Your task to perform on an android device: Go to CNN.com Image 0: 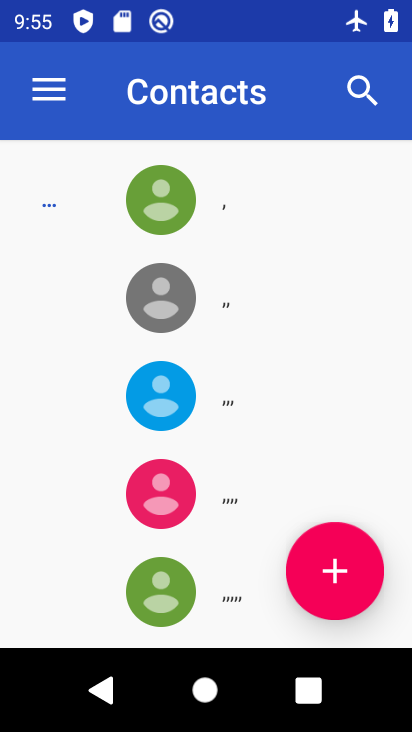
Step 0: press home button
Your task to perform on an android device: Go to CNN.com Image 1: 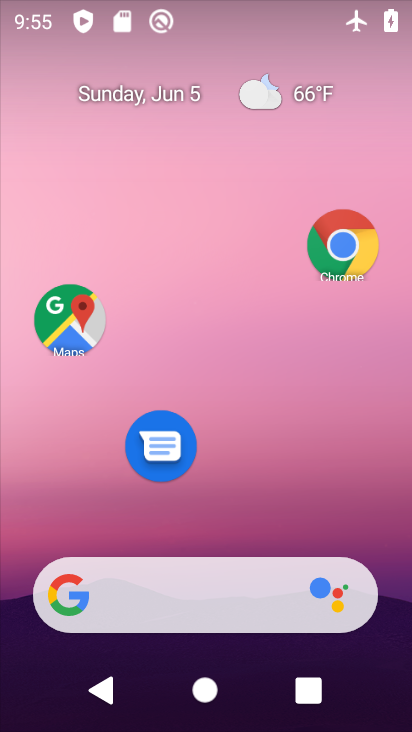
Step 1: click (339, 264)
Your task to perform on an android device: Go to CNN.com Image 2: 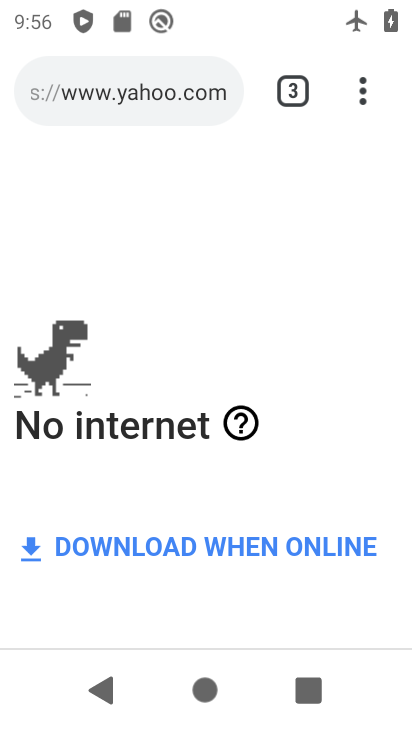
Step 2: click (302, 92)
Your task to perform on an android device: Go to CNN.com Image 3: 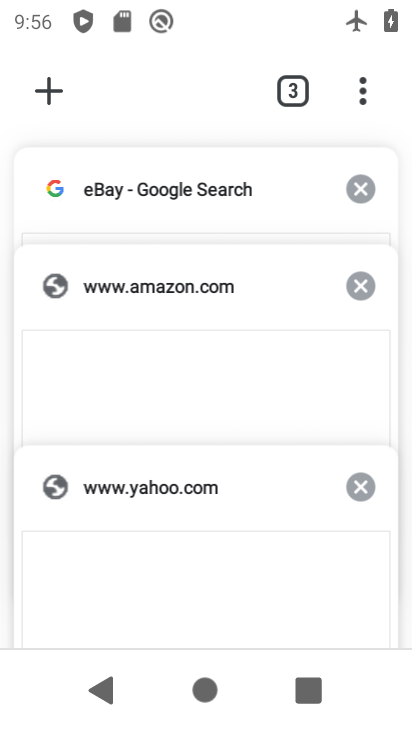
Step 3: click (52, 88)
Your task to perform on an android device: Go to CNN.com Image 4: 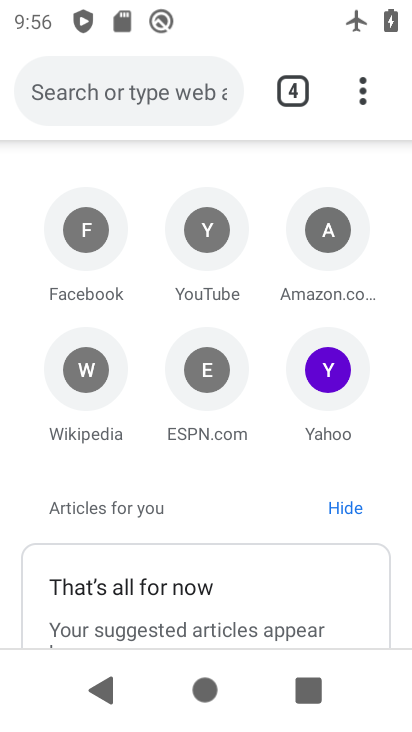
Step 4: click (128, 111)
Your task to perform on an android device: Go to CNN.com Image 5: 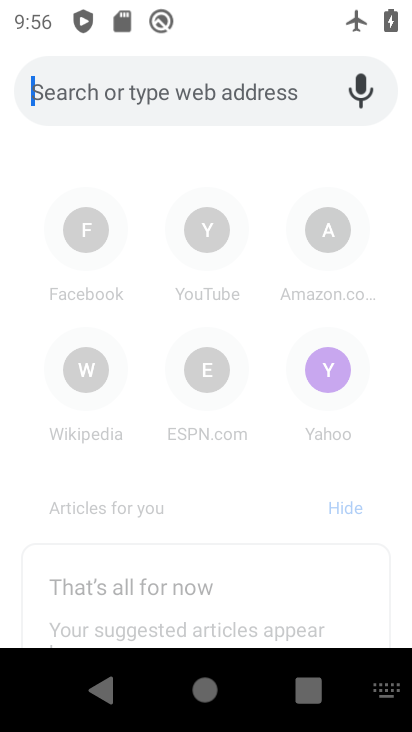
Step 5: type "CNN.com"
Your task to perform on an android device: Go to CNN.com Image 6: 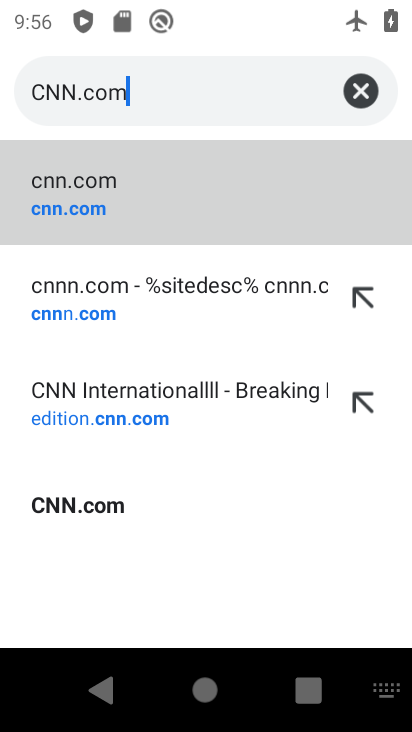
Step 6: click (164, 184)
Your task to perform on an android device: Go to CNN.com Image 7: 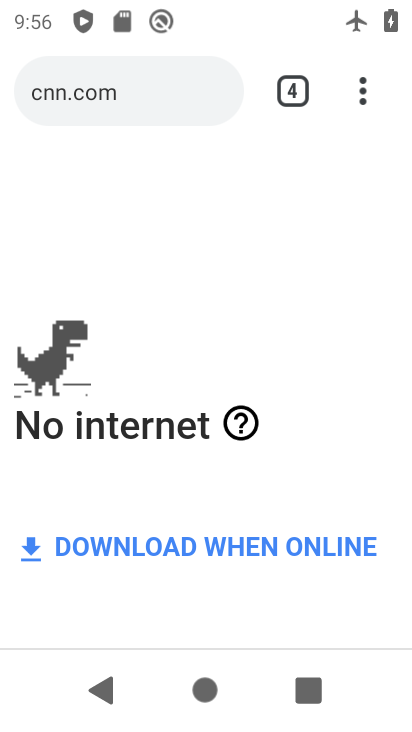
Step 7: task complete